Your task to perform on an android device: uninstall "VLC for Android" Image 0: 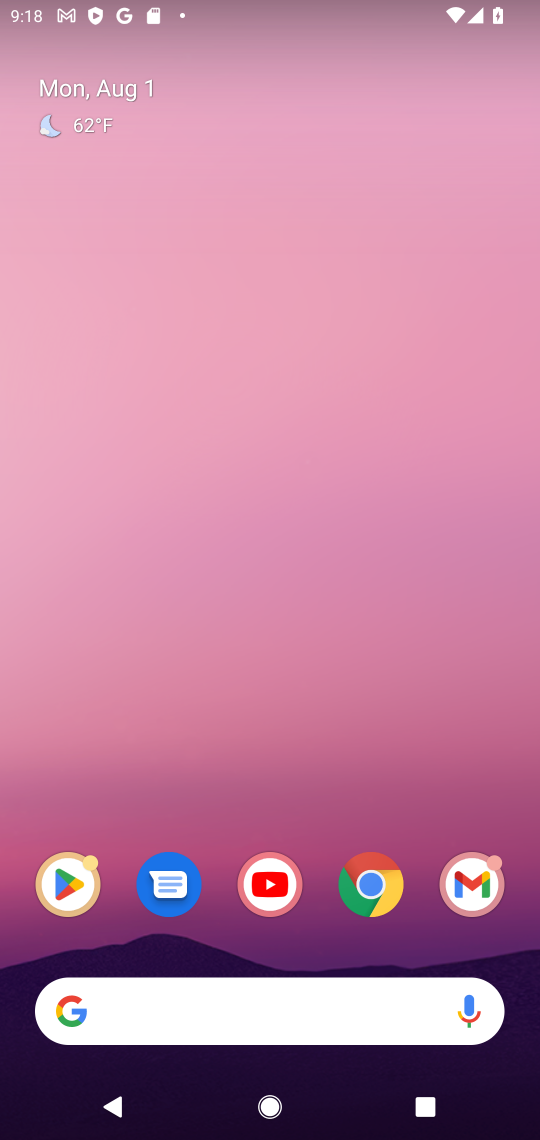
Step 0: click (74, 876)
Your task to perform on an android device: uninstall "VLC for Android" Image 1: 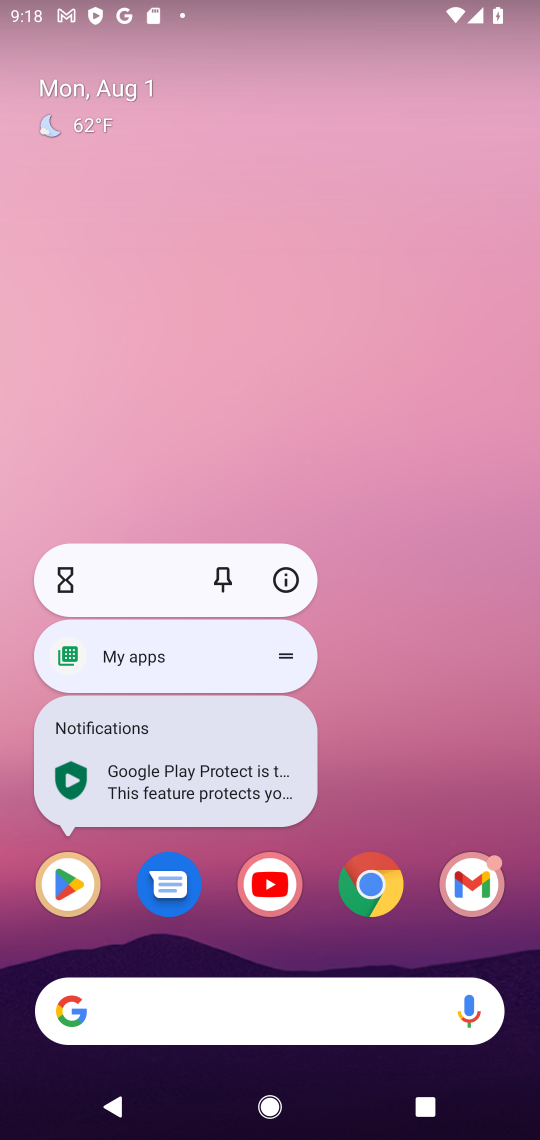
Step 1: click (74, 876)
Your task to perform on an android device: uninstall "VLC for Android" Image 2: 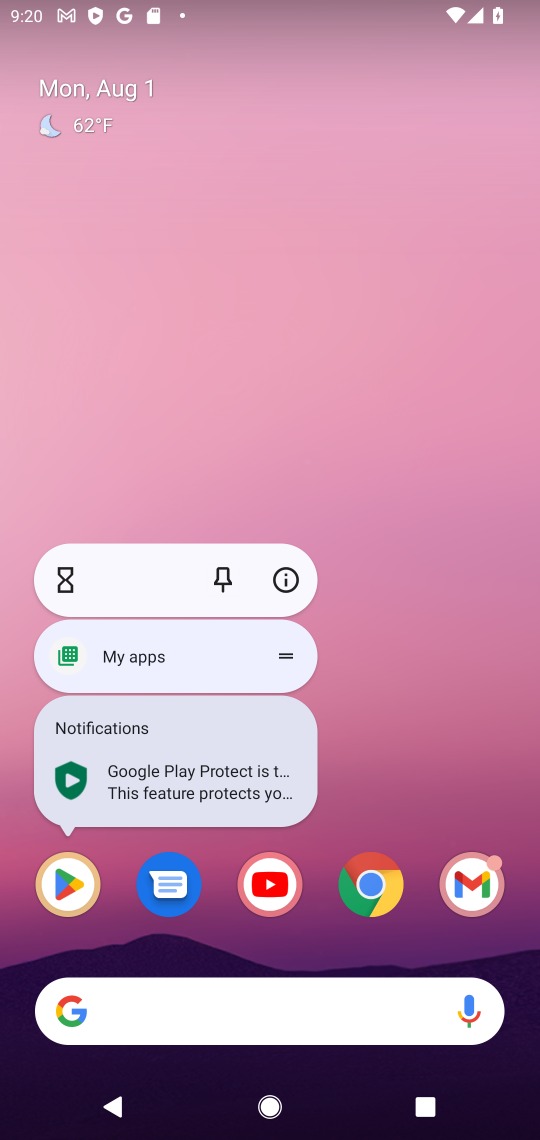
Step 2: click (40, 885)
Your task to perform on an android device: uninstall "VLC for Android" Image 3: 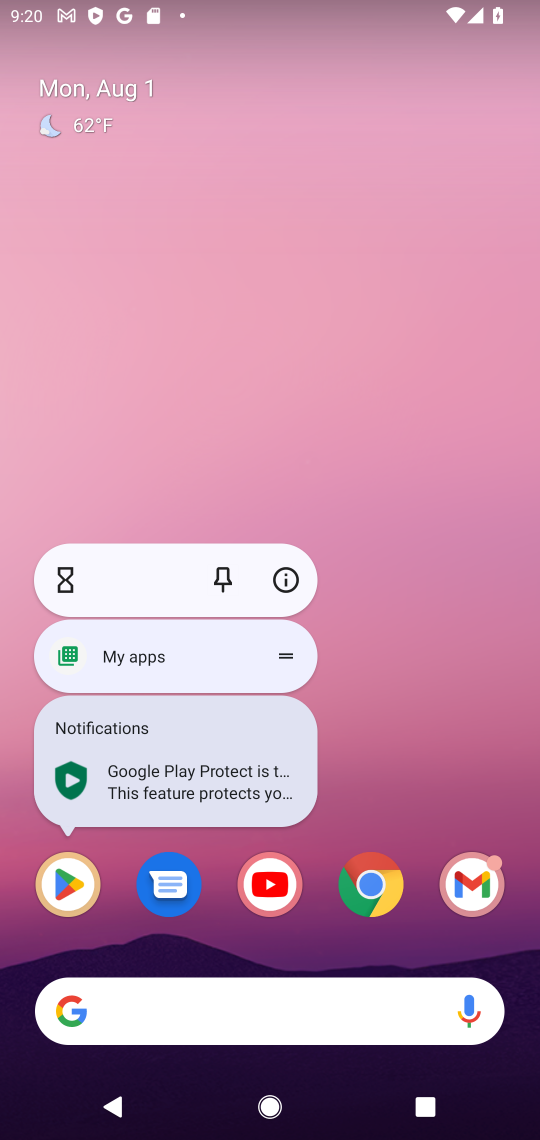
Step 3: click (66, 907)
Your task to perform on an android device: uninstall "VLC for Android" Image 4: 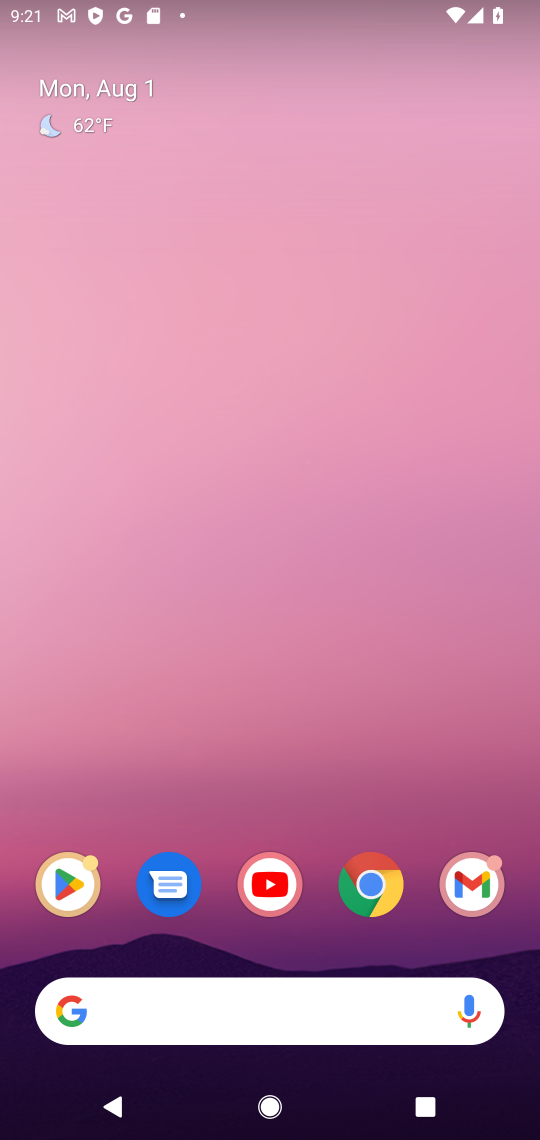
Step 4: click (74, 900)
Your task to perform on an android device: uninstall "VLC for Android" Image 5: 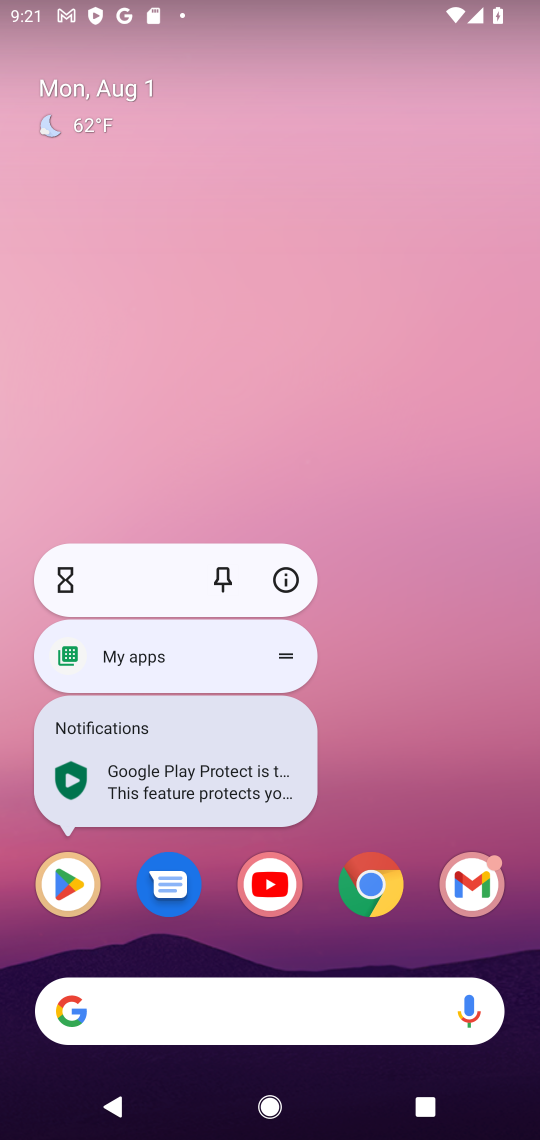
Step 5: drag from (70, 900) to (93, 998)
Your task to perform on an android device: uninstall "VLC for Android" Image 6: 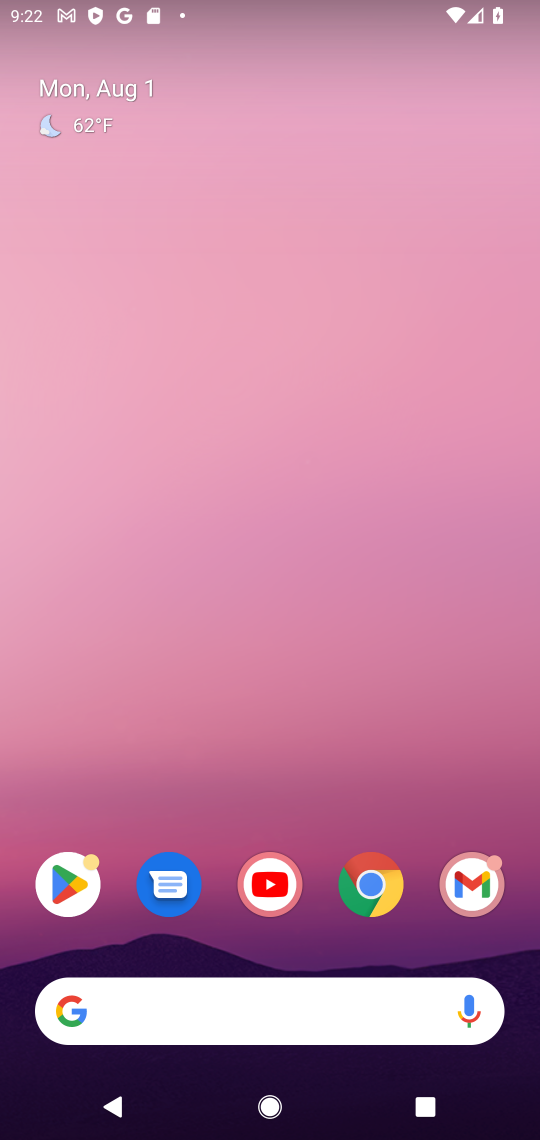
Step 6: click (97, 900)
Your task to perform on an android device: uninstall "VLC for Android" Image 7: 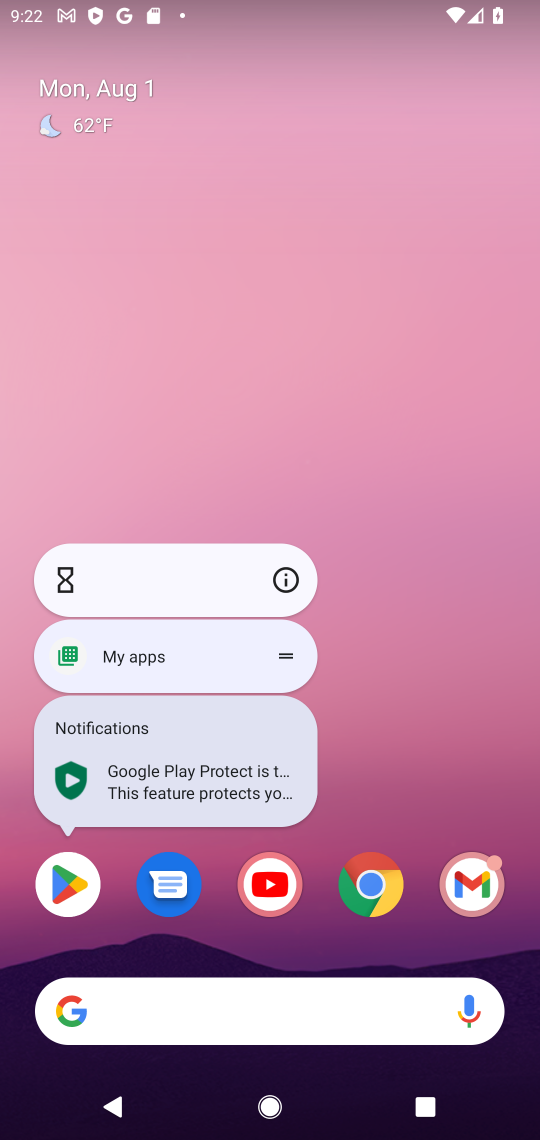
Step 7: click (97, 900)
Your task to perform on an android device: uninstall "VLC for Android" Image 8: 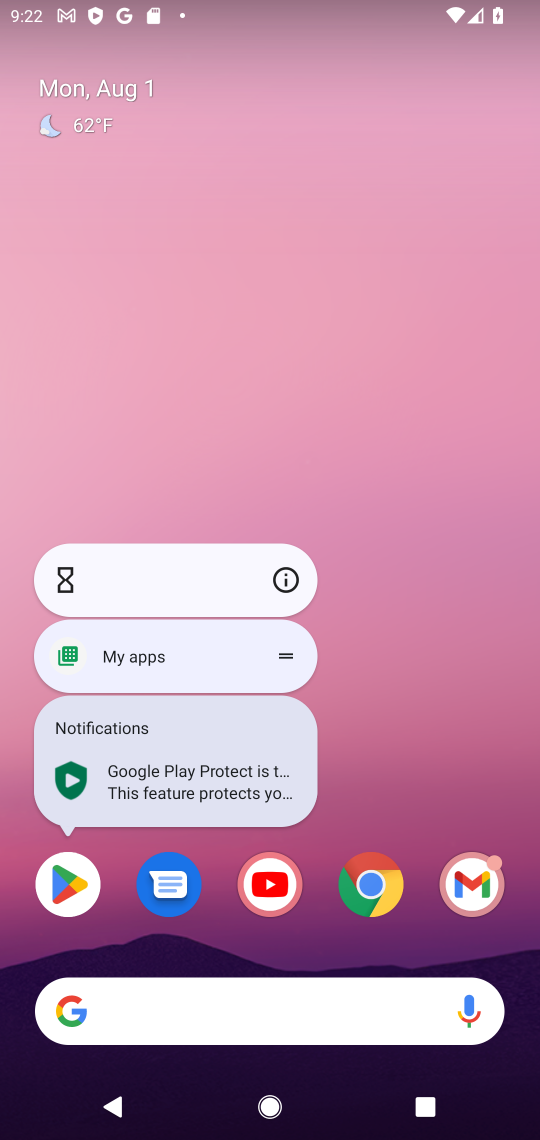
Step 8: click (92, 894)
Your task to perform on an android device: uninstall "VLC for Android" Image 9: 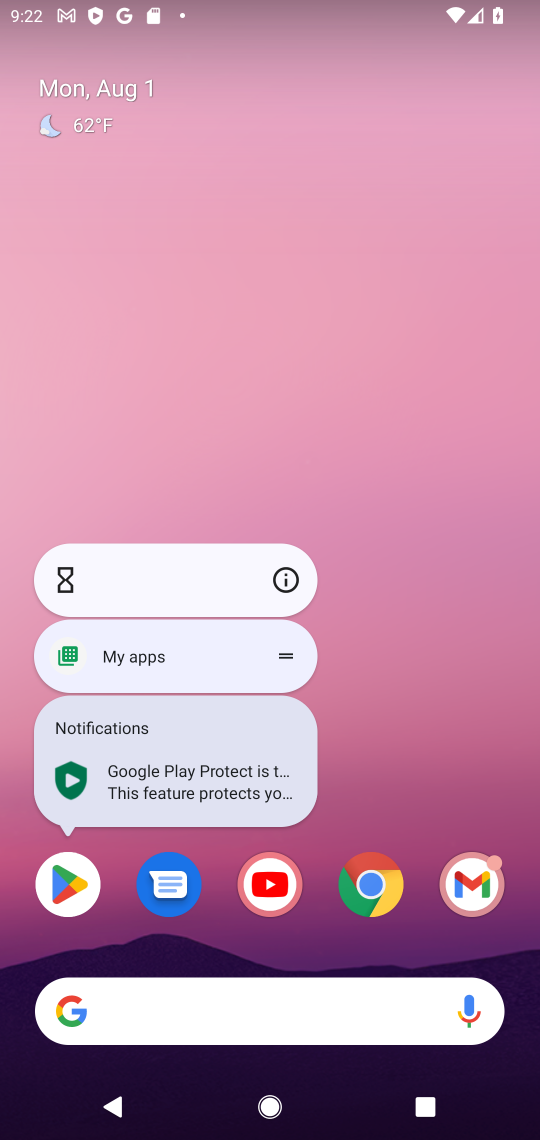
Step 9: click (92, 894)
Your task to perform on an android device: uninstall "VLC for Android" Image 10: 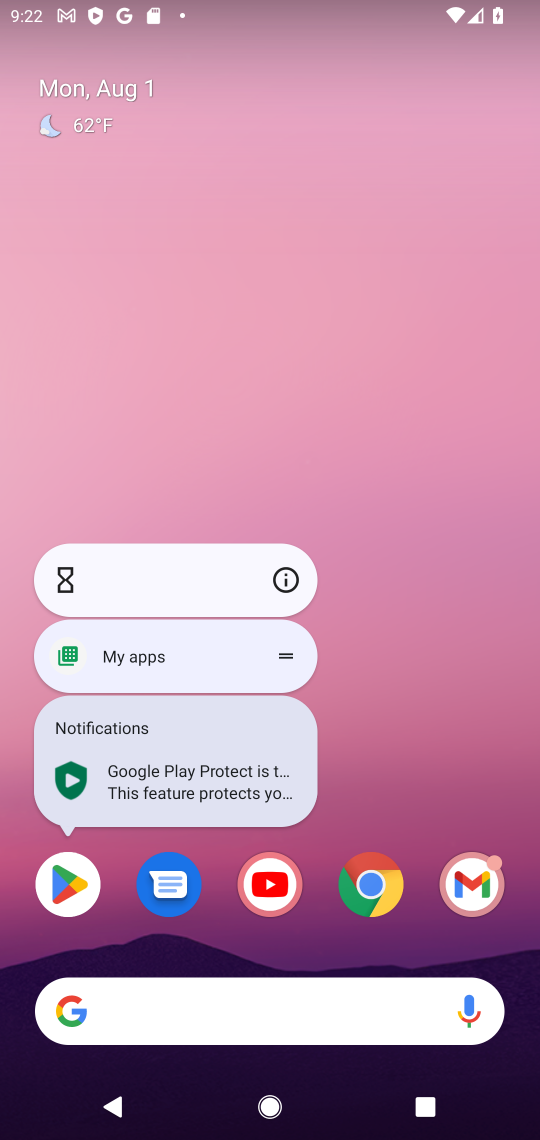
Step 10: click (92, 894)
Your task to perform on an android device: uninstall "VLC for Android" Image 11: 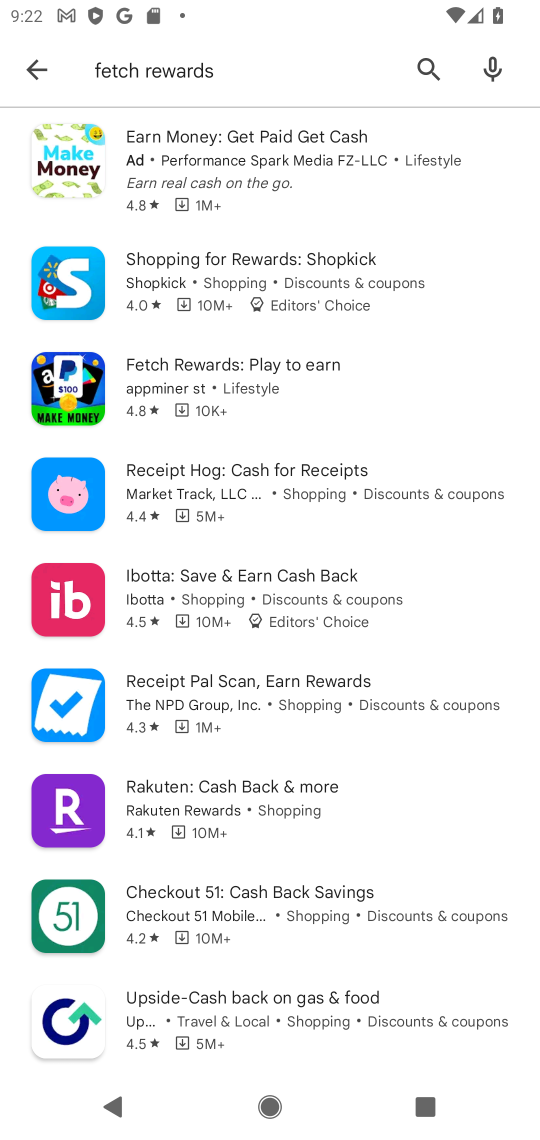
Step 11: click (432, 70)
Your task to perform on an android device: uninstall "VLC for Android" Image 12: 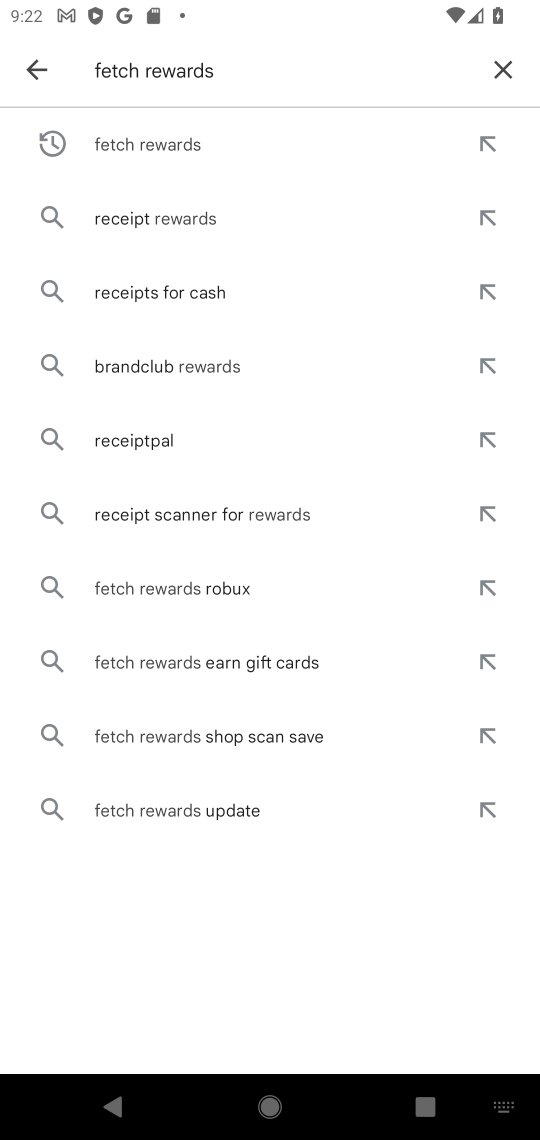
Step 12: click (517, 68)
Your task to perform on an android device: uninstall "VLC for Android" Image 13: 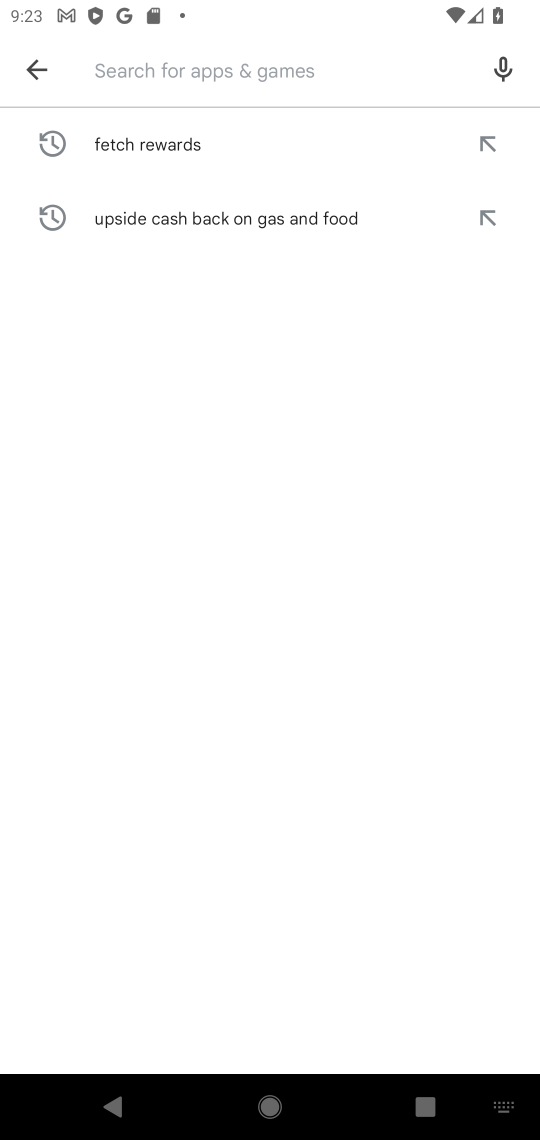
Step 13: type "vlc for android "
Your task to perform on an android device: uninstall "VLC for Android" Image 14: 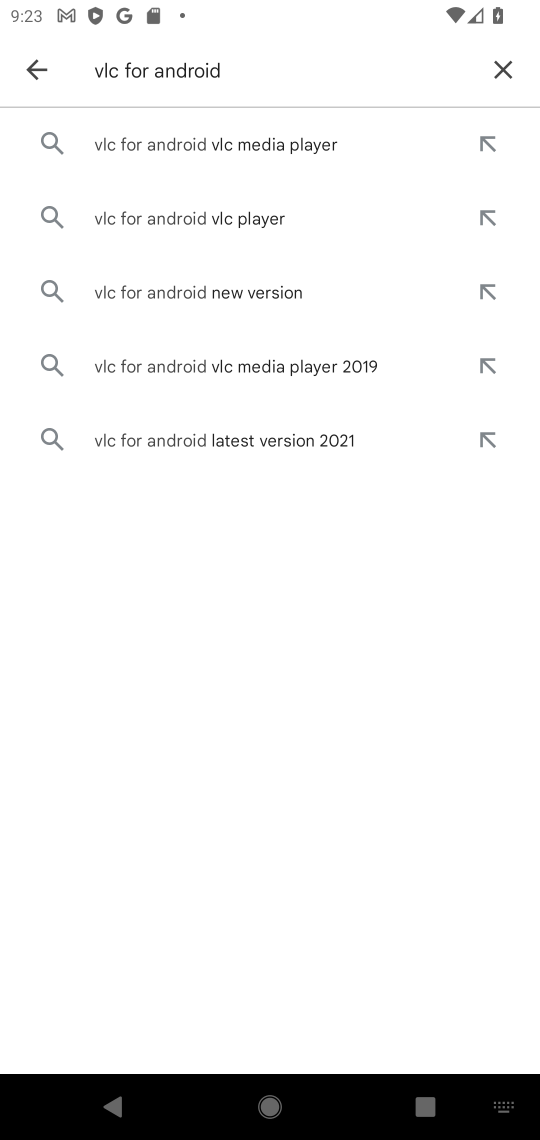
Step 14: click (144, 87)
Your task to perform on an android device: uninstall "VLC for Android" Image 15: 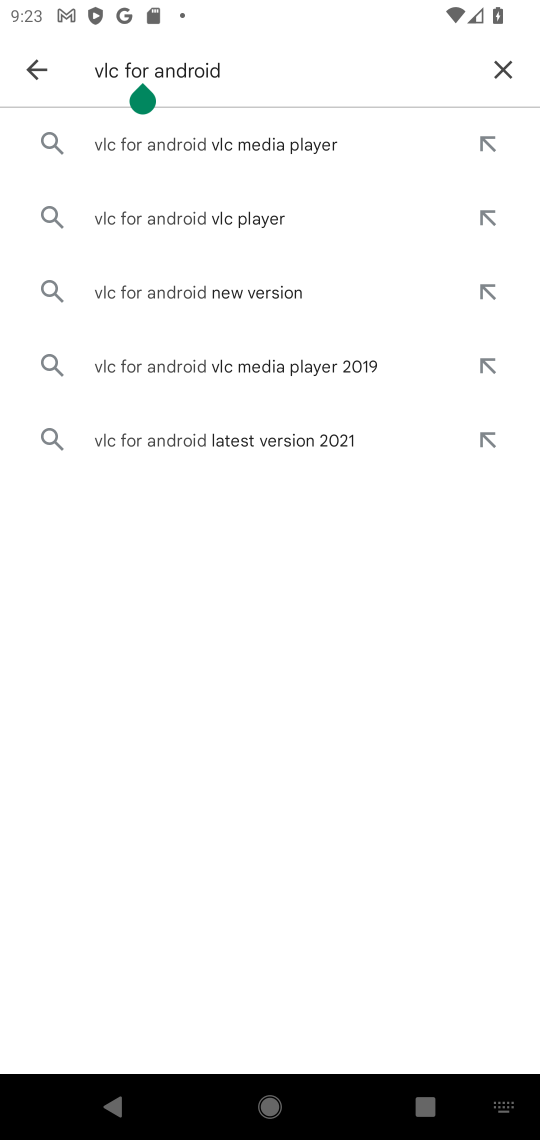
Step 15: click (206, 143)
Your task to perform on an android device: uninstall "VLC for Android" Image 16: 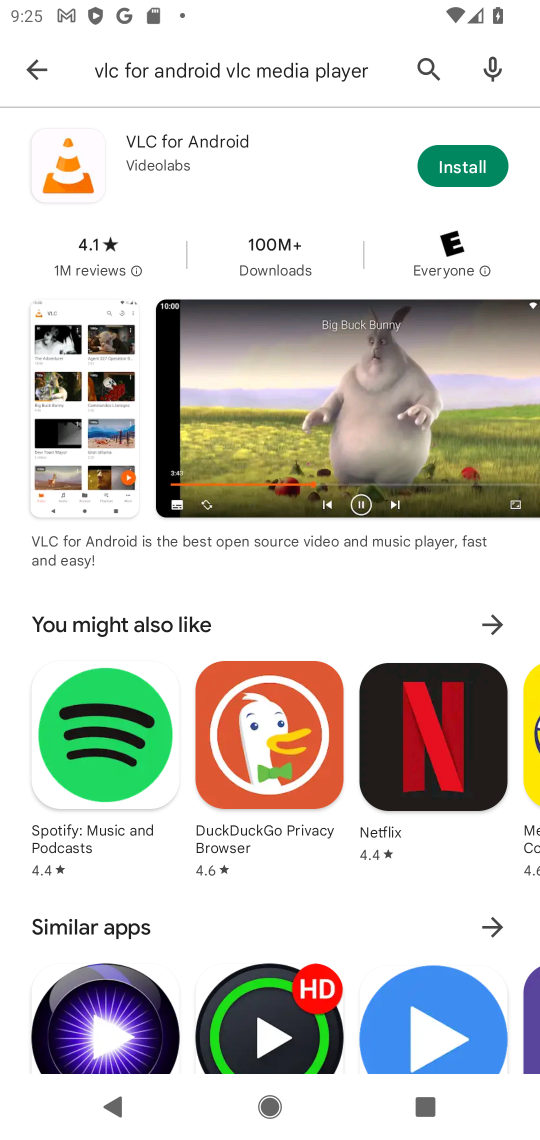
Step 16: task complete